Your task to perform on an android device: toggle wifi Image 0: 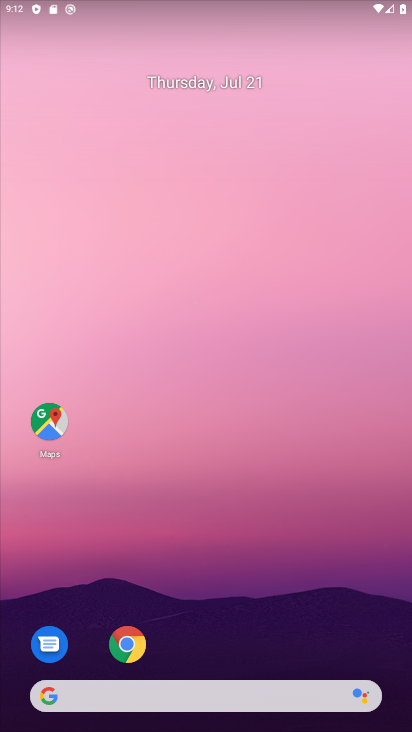
Step 0: drag from (210, 647) to (262, 71)
Your task to perform on an android device: toggle wifi Image 1: 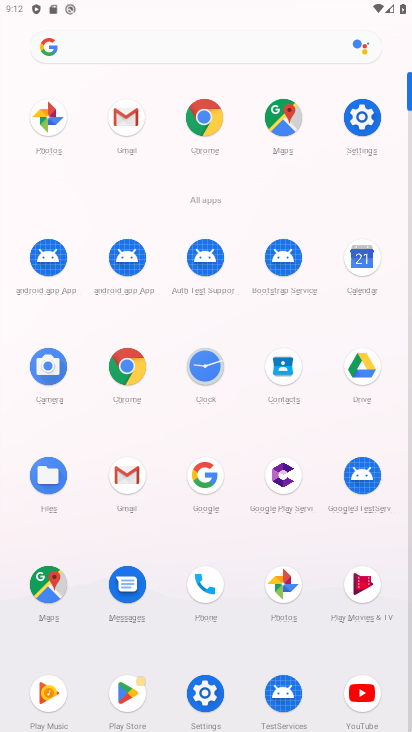
Step 1: click (365, 118)
Your task to perform on an android device: toggle wifi Image 2: 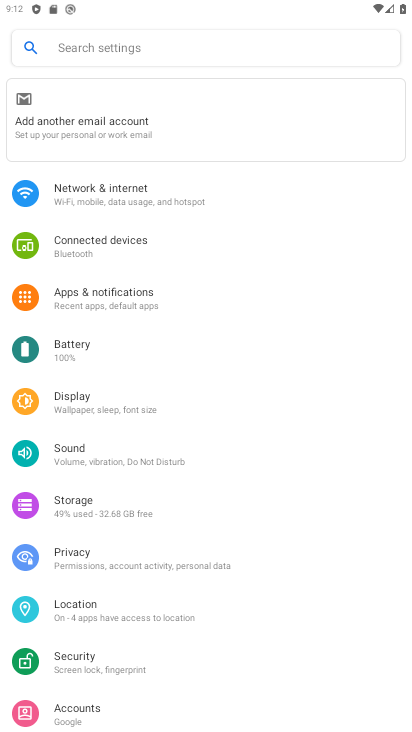
Step 2: click (91, 183)
Your task to perform on an android device: toggle wifi Image 3: 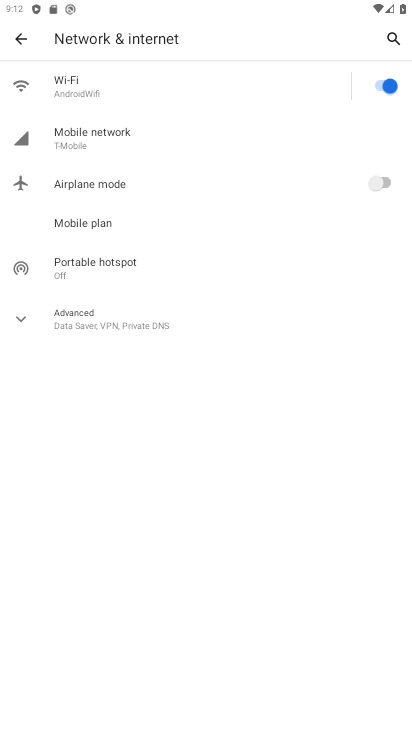
Step 3: click (381, 85)
Your task to perform on an android device: toggle wifi Image 4: 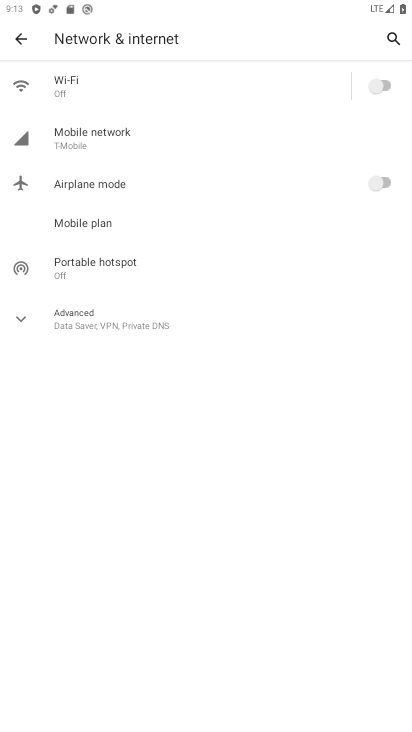
Step 4: task complete